Your task to perform on an android device: check the backup settings in the google photos Image 0: 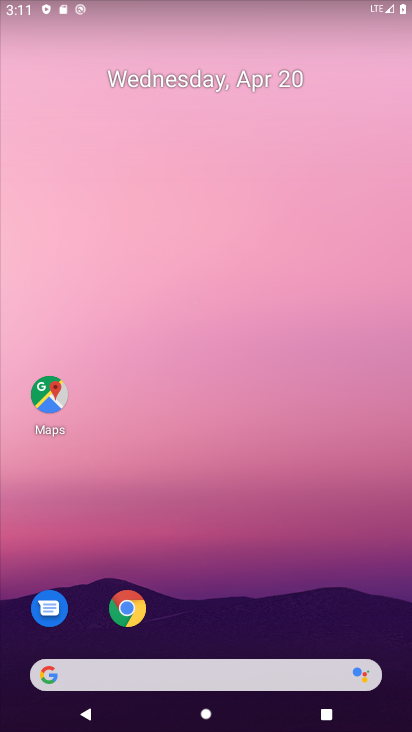
Step 0: drag from (236, 635) to (242, 45)
Your task to perform on an android device: check the backup settings in the google photos Image 1: 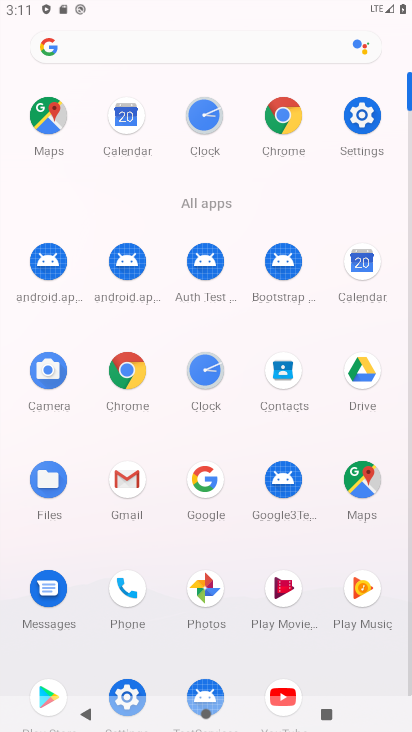
Step 1: click (216, 579)
Your task to perform on an android device: check the backup settings in the google photos Image 2: 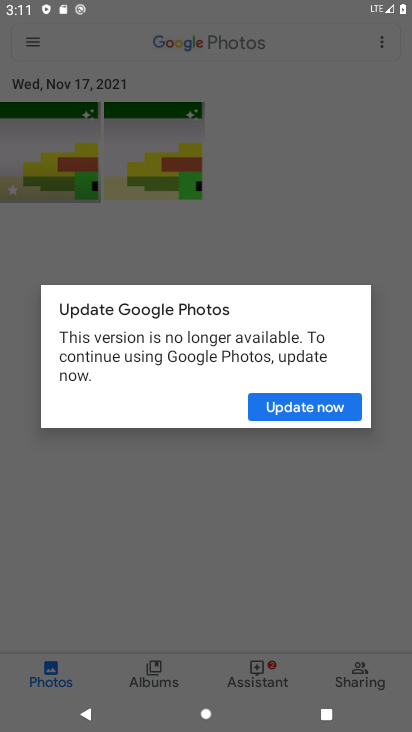
Step 2: click (291, 416)
Your task to perform on an android device: check the backup settings in the google photos Image 3: 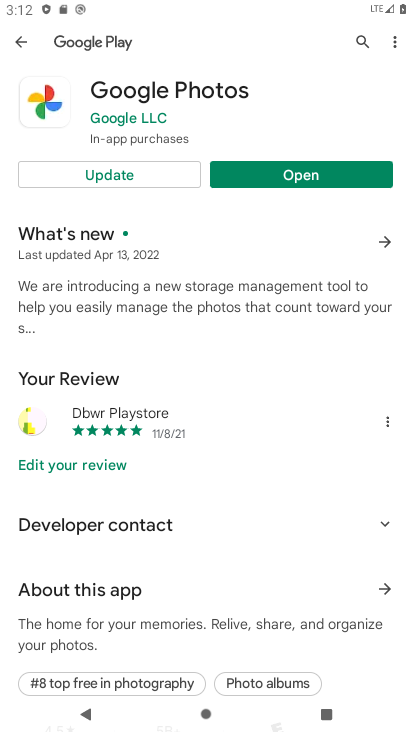
Step 3: click (301, 170)
Your task to perform on an android device: check the backup settings in the google photos Image 4: 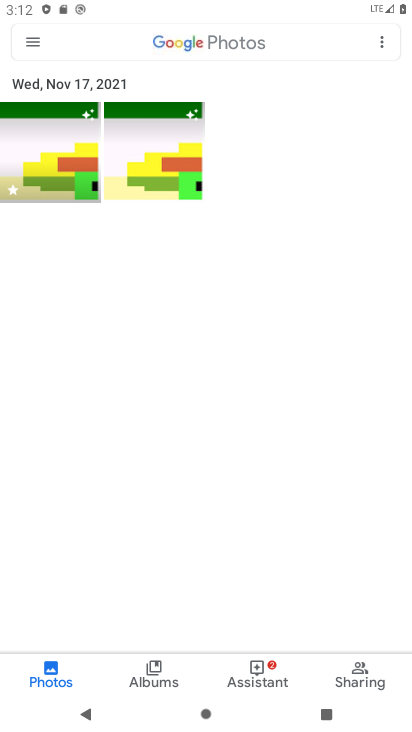
Step 4: click (17, 40)
Your task to perform on an android device: check the backup settings in the google photos Image 5: 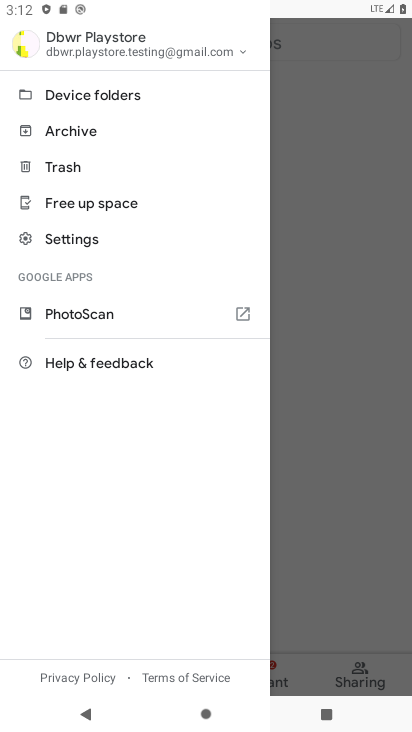
Step 5: click (99, 241)
Your task to perform on an android device: check the backup settings in the google photos Image 6: 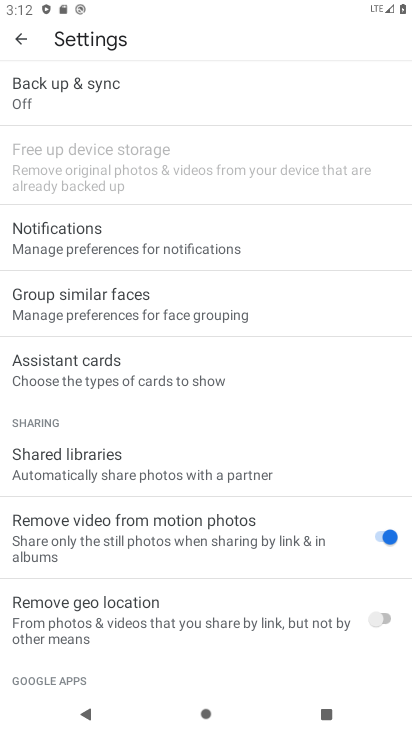
Step 6: click (110, 102)
Your task to perform on an android device: check the backup settings in the google photos Image 7: 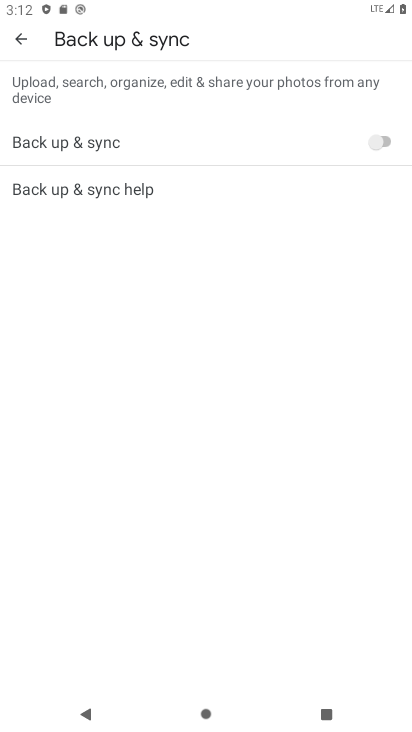
Step 7: task complete